Your task to perform on an android device: Open Android settings Image 0: 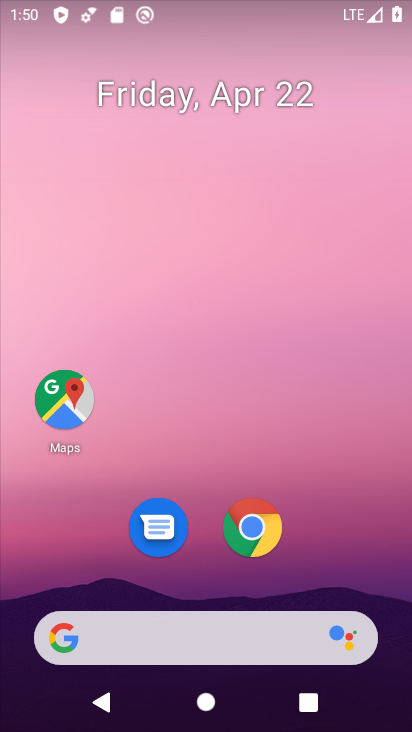
Step 0: press home button
Your task to perform on an android device: Open Android settings Image 1: 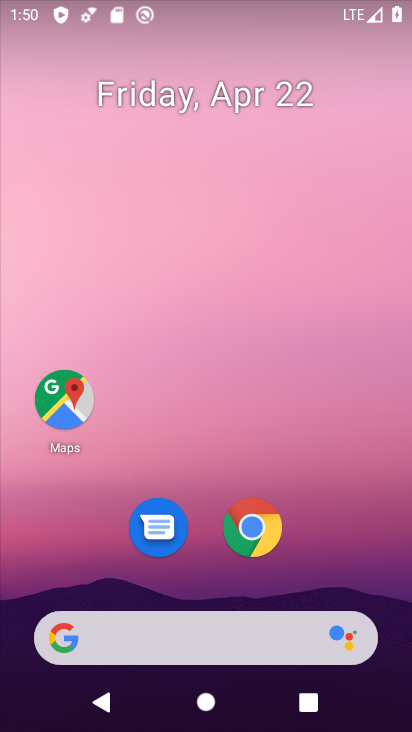
Step 1: drag from (329, 411) to (297, 111)
Your task to perform on an android device: Open Android settings Image 2: 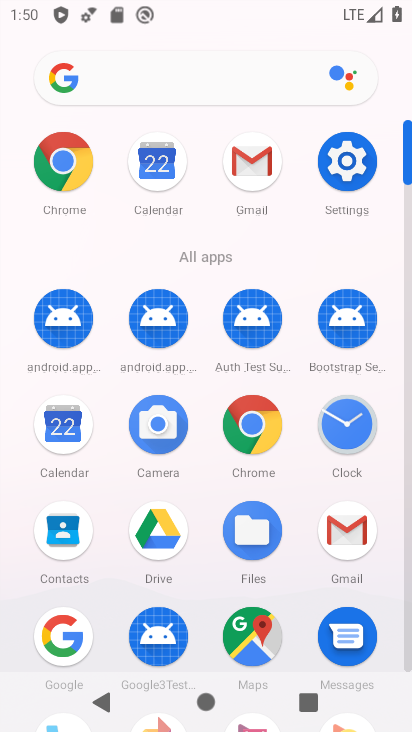
Step 2: click (342, 163)
Your task to perform on an android device: Open Android settings Image 3: 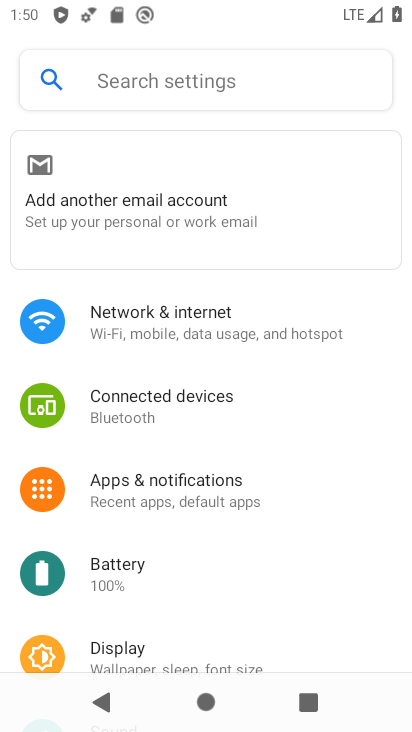
Step 3: drag from (334, 565) to (317, 177)
Your task to perform on an android device: Open Android settings Image 4: 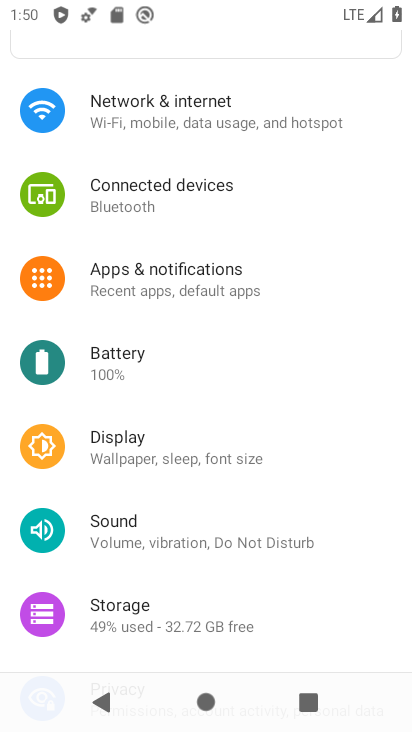
Step 4: drag from (295, 618) to (241, 89)
Your task to perform on an android device: Open Android settings Image 5: 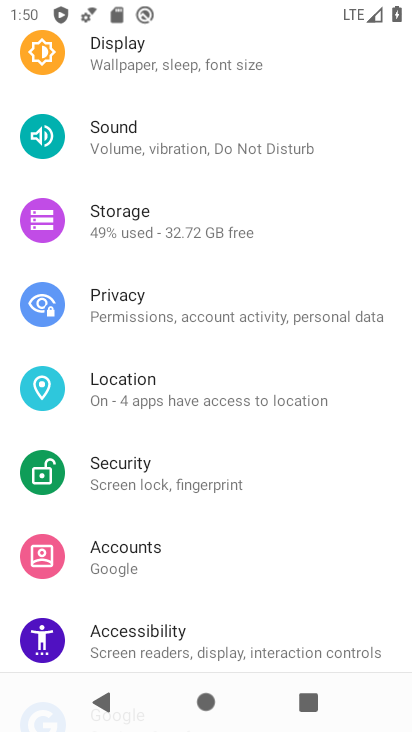
Step 5: drag from (260, 564) to (223, 78)
Your task to perform on an android device: Open Android settings Image 6: 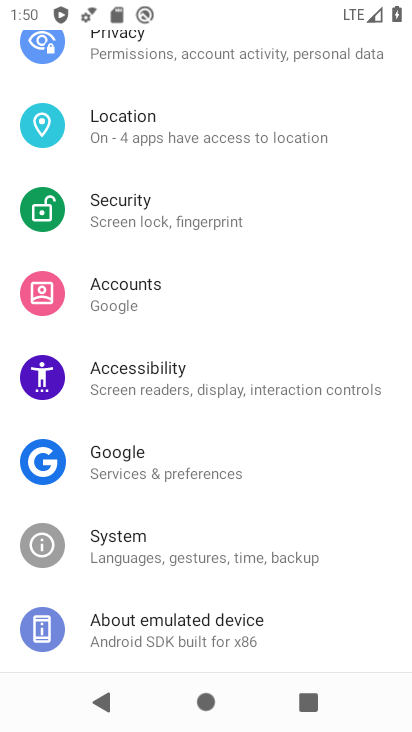
Step 6: click (160, 620)
Your task to perform on an android device: Open Android settings Image 7: 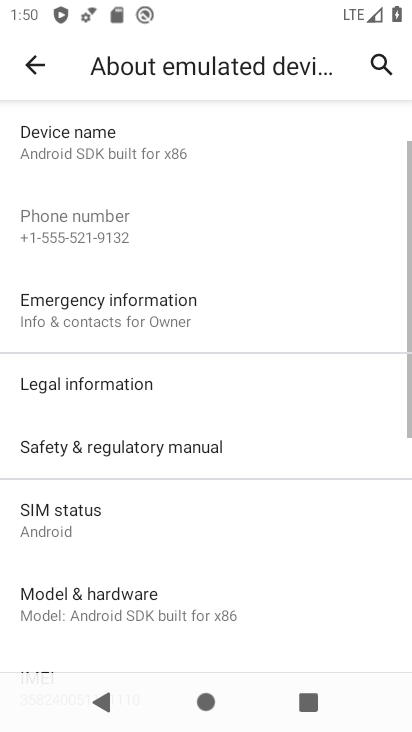
Step 7: drag from (162, 620) to (214, 192)
Your task to perform on an android device: Open Android settings Image 8: 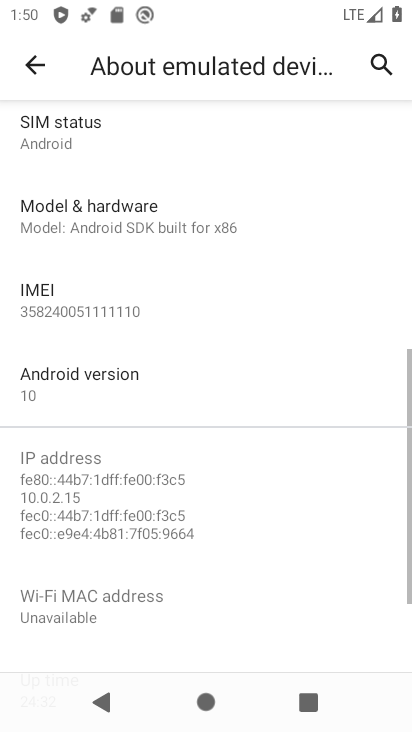
Step 8: click (126, 366)
Your task to perform on an android device: Open Android settings Image 9: 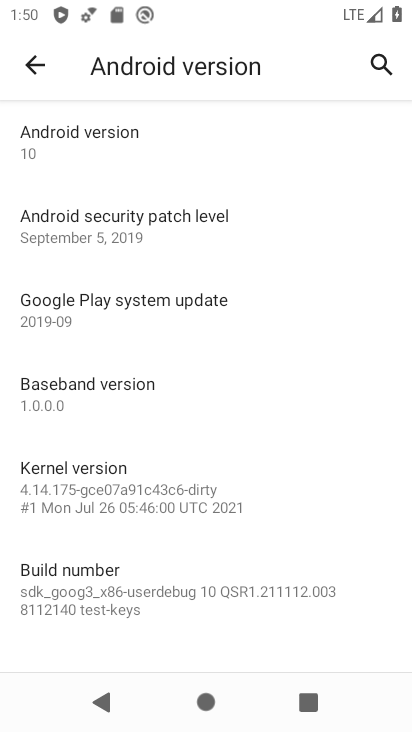
Step 9: task complete